Your task to perform on an android device: Add apple airpods pro to the cart on newegg, then select checkout. Image 0: 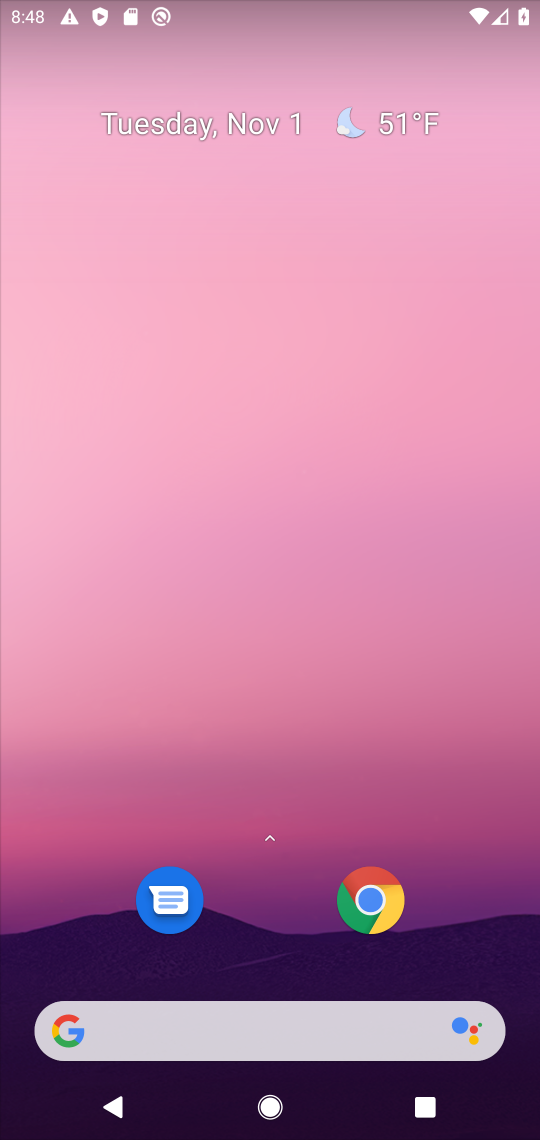
Step 0: click (463, 1139)
Your task to perform on an android device: Add apple airpods pro to the cart on newegg, then select checkout. Image 1: 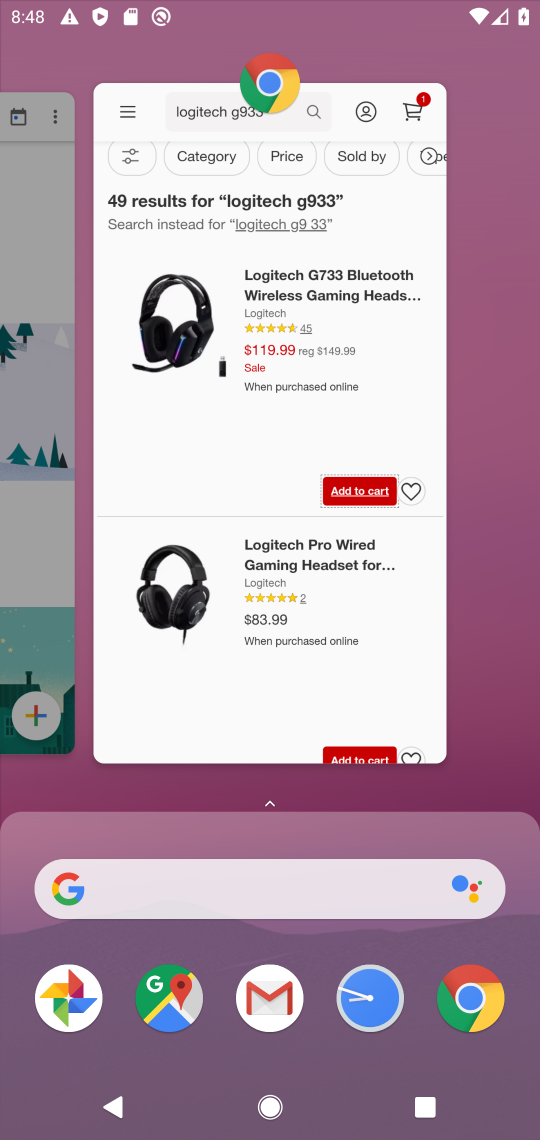
Step 1: click (213, 392)
Your task to perform on an android device: Add apple airpods pro to the cart on newegg, then select checkout. Image 2: 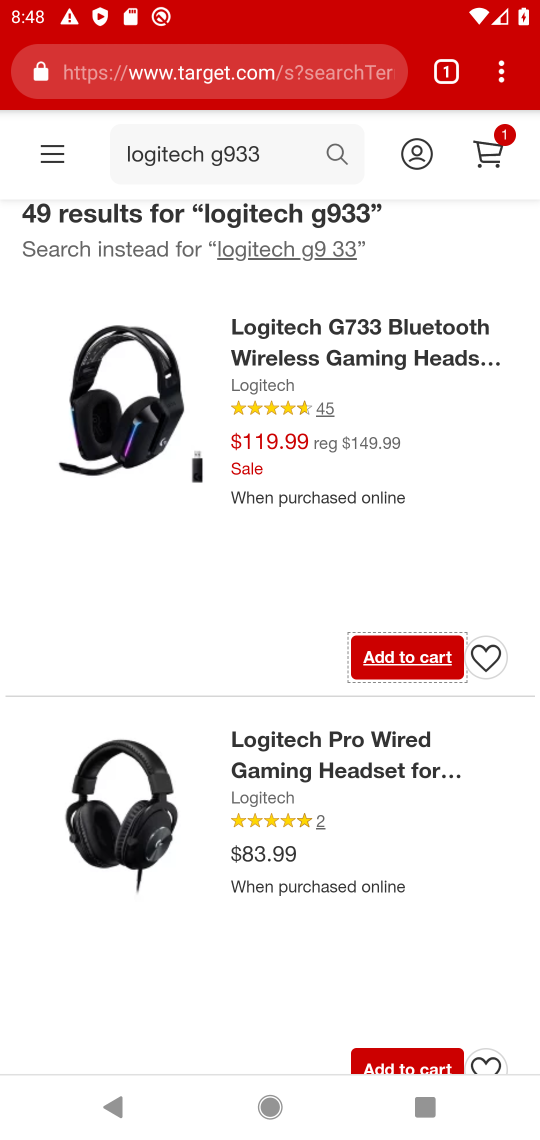
Step 2: task complete